Your task to perform on an android device: What's on my calendar today? Image 0: 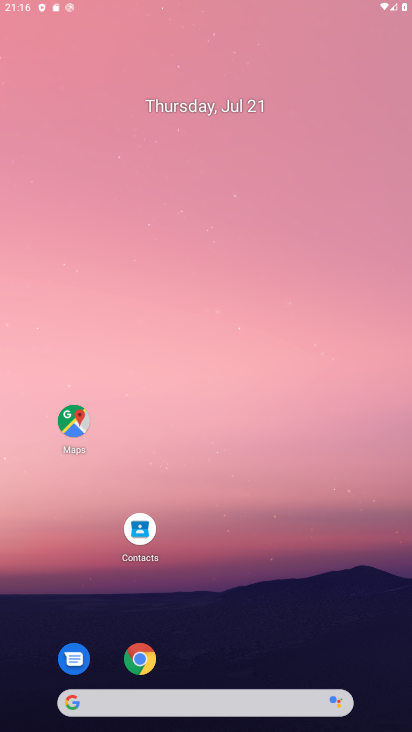
Step 0: drag from (234, 611) to (215, 156)
Your task to perform on an android device: What's on my calendar today? Image 1: 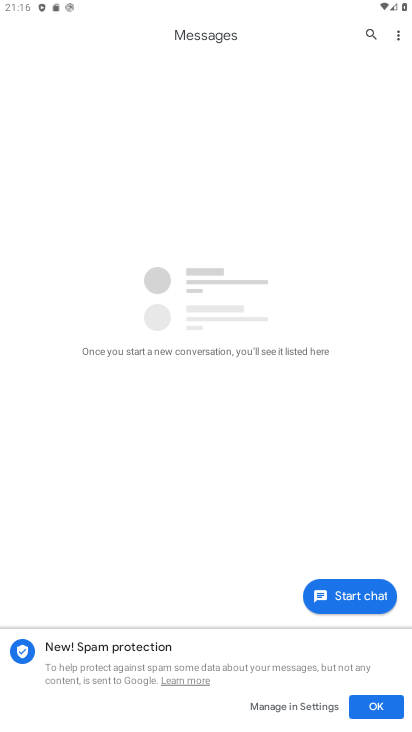
Step 1: press home button
Your task to perform on an android device: What's on my calendar today? Image 2: 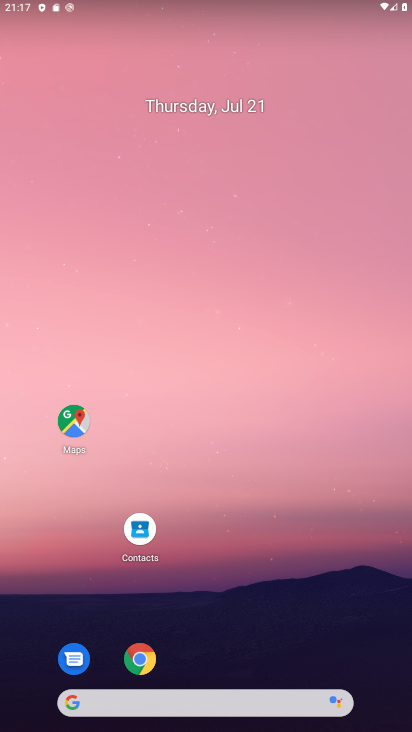
Step 2: drag from (173, 703) to (270, 185)
Your task to perform on an android device: What's on my calendar today? Image 3: 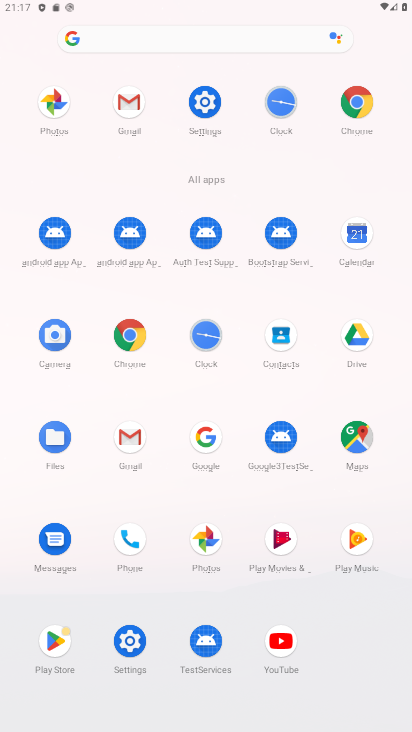
Step 3: click (357, 238)
Your task to perform on an android device: What's on my calendar today? Image 4: 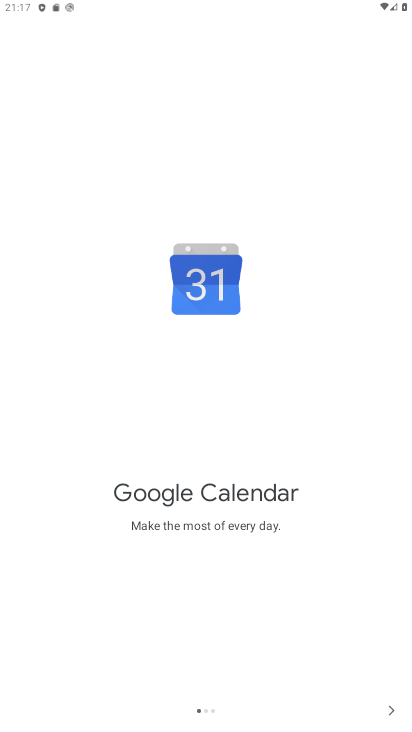
Step 4: click (390, 706)
Your task to perform on an android device: What's on my calendar today? Image 5: 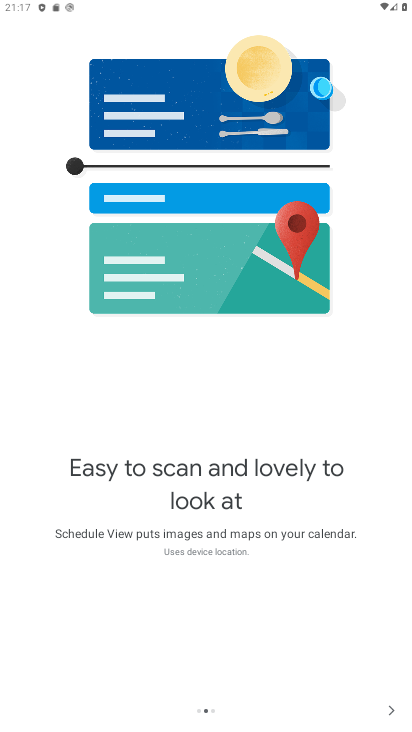
Step 5: click (390, 706)
Your task to perform on an android device: What's on my calendar today? Image 6: 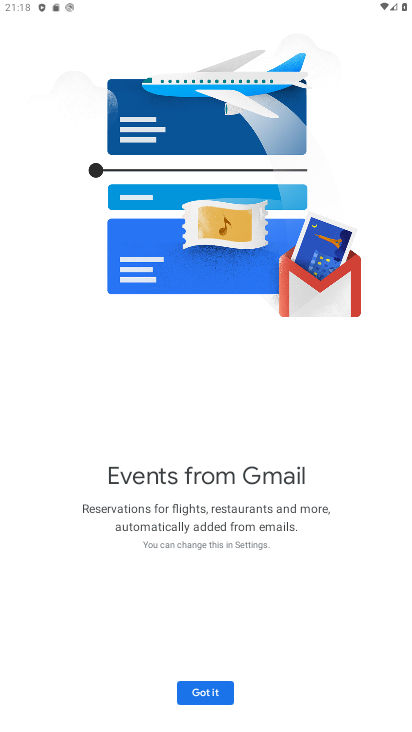
Step 6: click (212, 682)
Your task to perform on an android device: What's on my calendar today? Image 7: 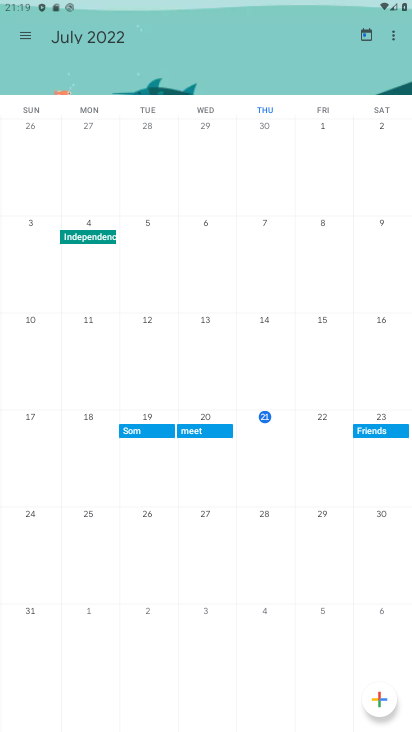
Step 7: task complete